Your task to perform on an android device: turn on the 24-hour format for clock Image 0: 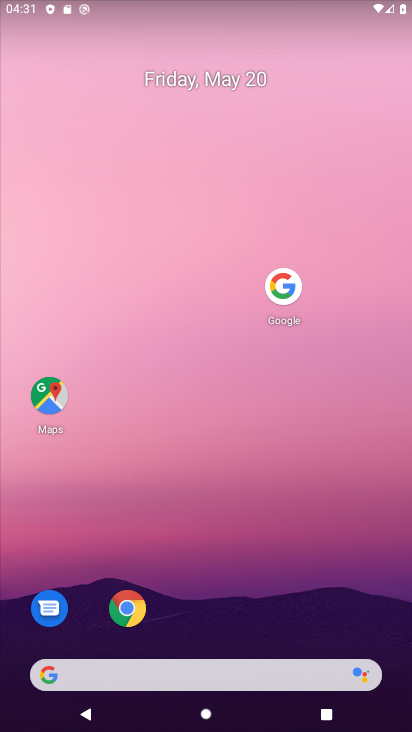
Step 0: drag from (185, 649) to (100, 35)
Your task to perform on an android device: turn on the 24-hour format for clock Image 1: 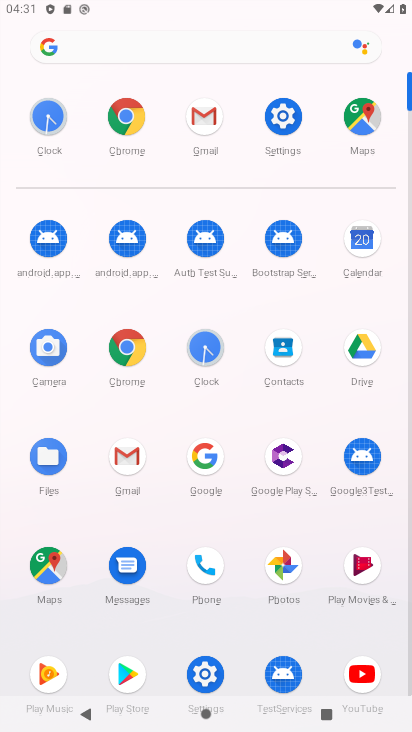
Step 1: click (198, 361)
Your task to perform on an android device: turn on the 24-hour format for clock Image 2: 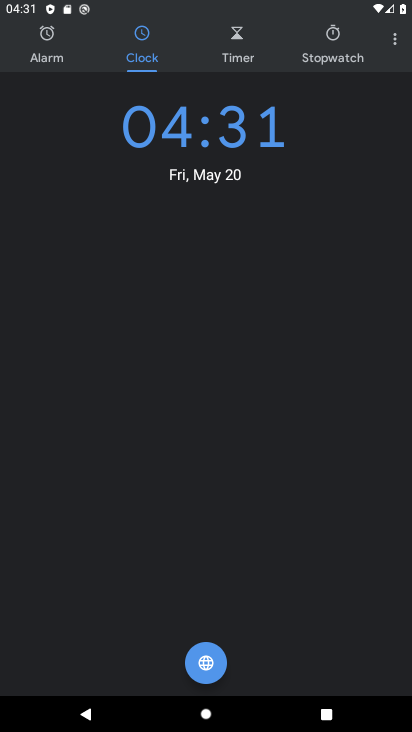
Step 2: drag from (388, 43) to (348, 78)
Your task to perform on an android device: turn on the 24-hour format for clock Image 3: 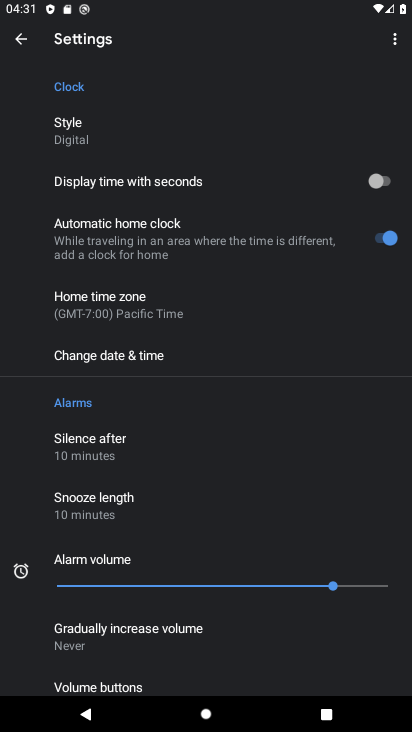
Step 3: drag from (218, 636) to (155, 297)
Your task to perform on an android device: turn on the 24-hour format for clock Image 4: 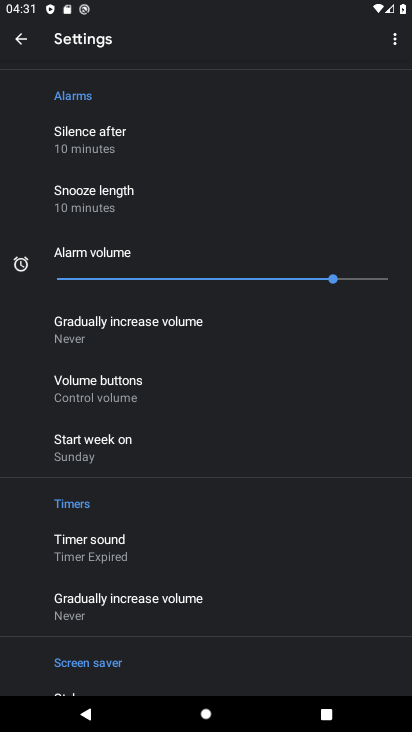
Step 4: drag from (148, 249) to (171, 339)
Your task to perform on an android device: turn on the 24-hour format for clock Image 5: 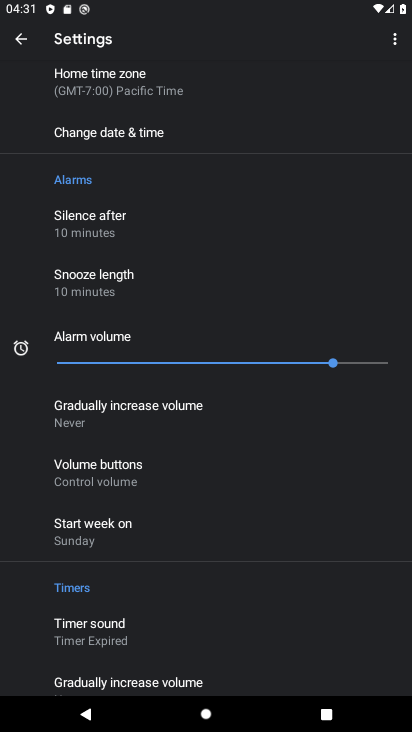
Step 5: click (96, 131)
Your task to perform on an android device: turn on the 24-hour format for clock Image 6: 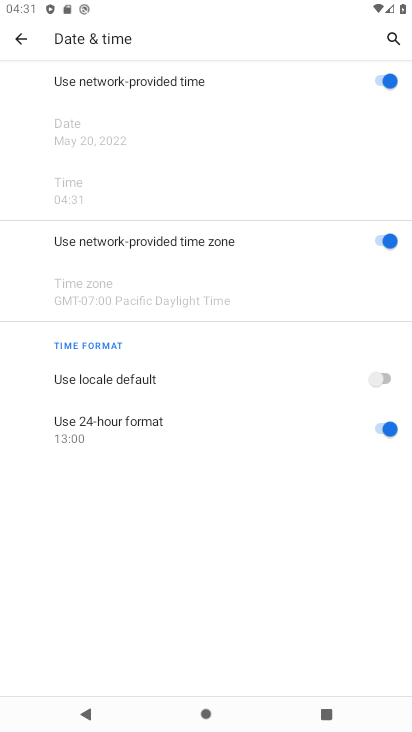
Step 6: task complete